Your task to perform on an android device: check google app version Image 0: 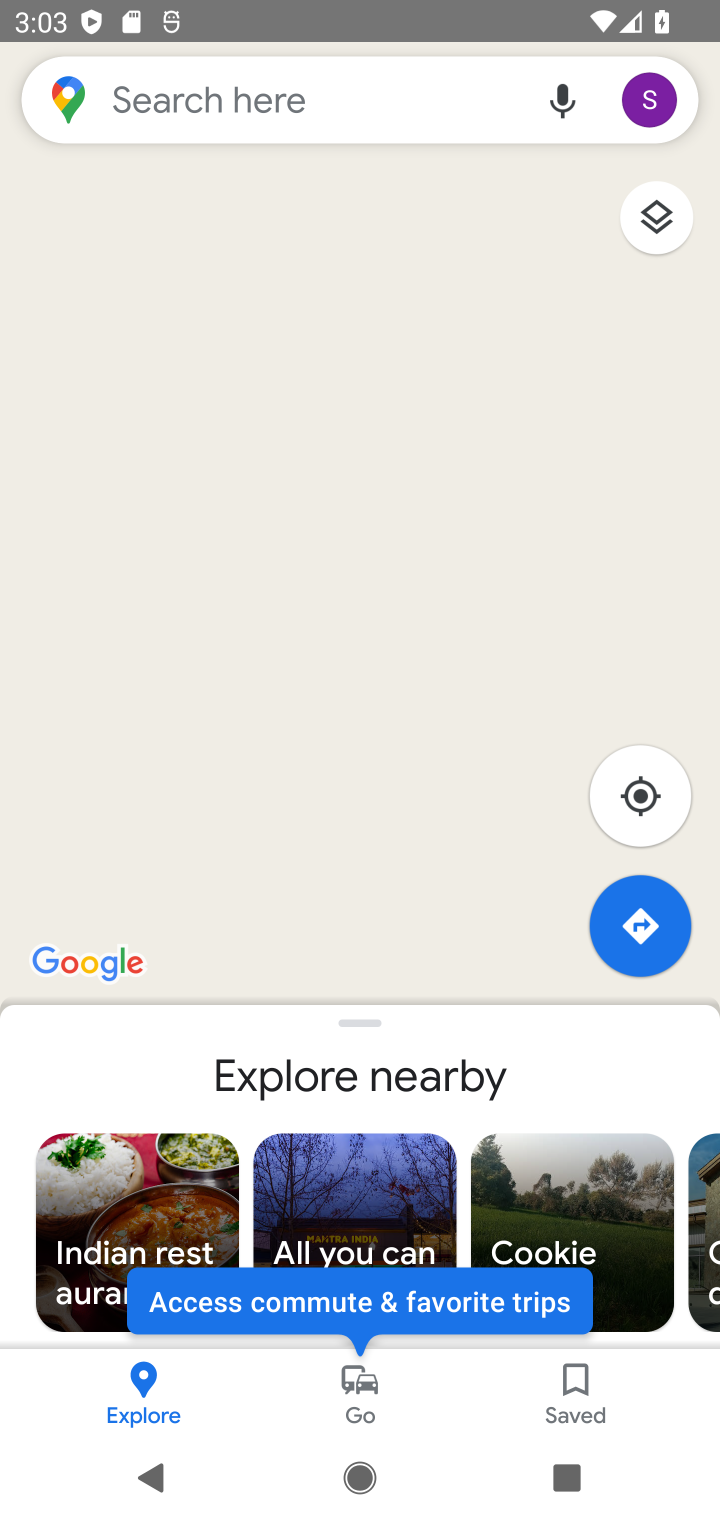
Step 0: press home button
Your task to perform on an android device: check google app version Image 1: 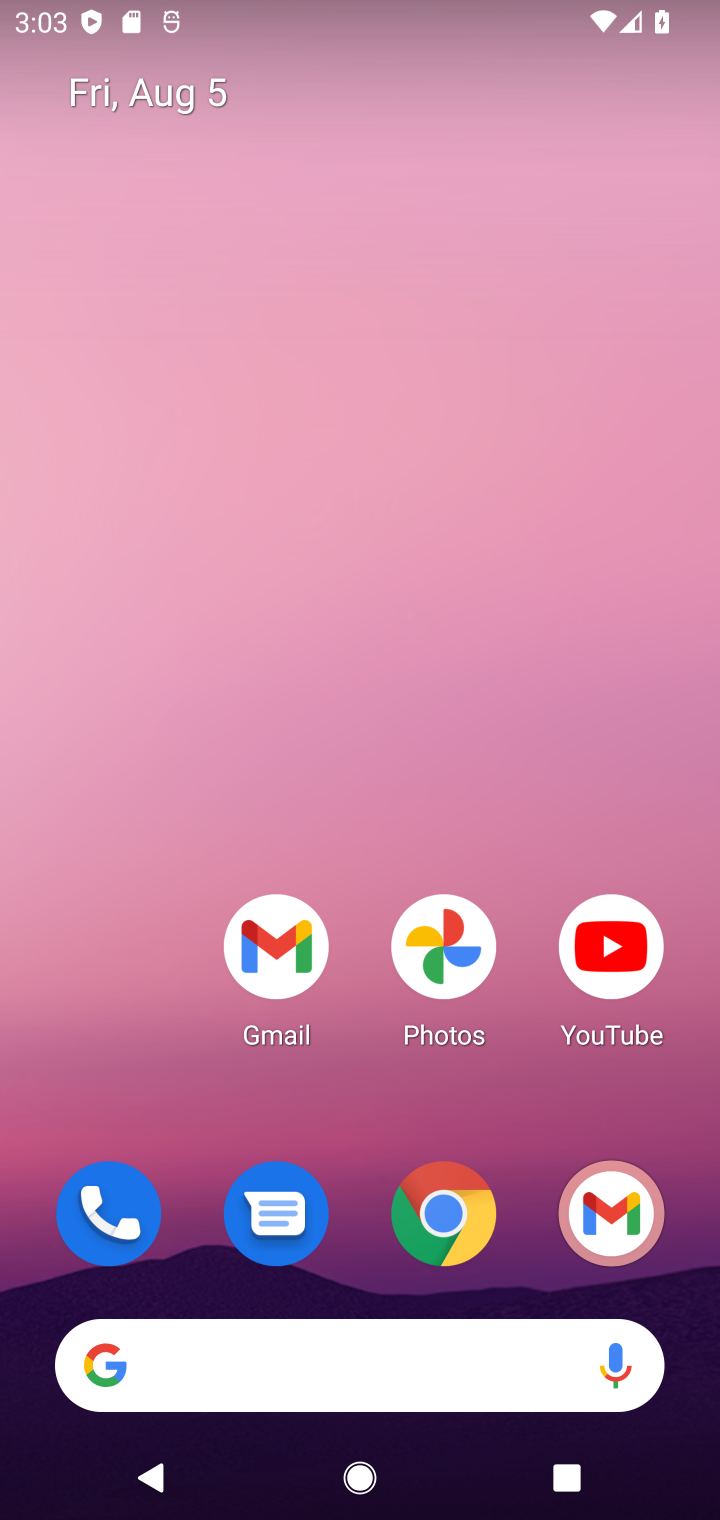
Step 1: drag from (126, 1000) to (118, 0)
Your task to perform on an android device: check google app version Image 2: 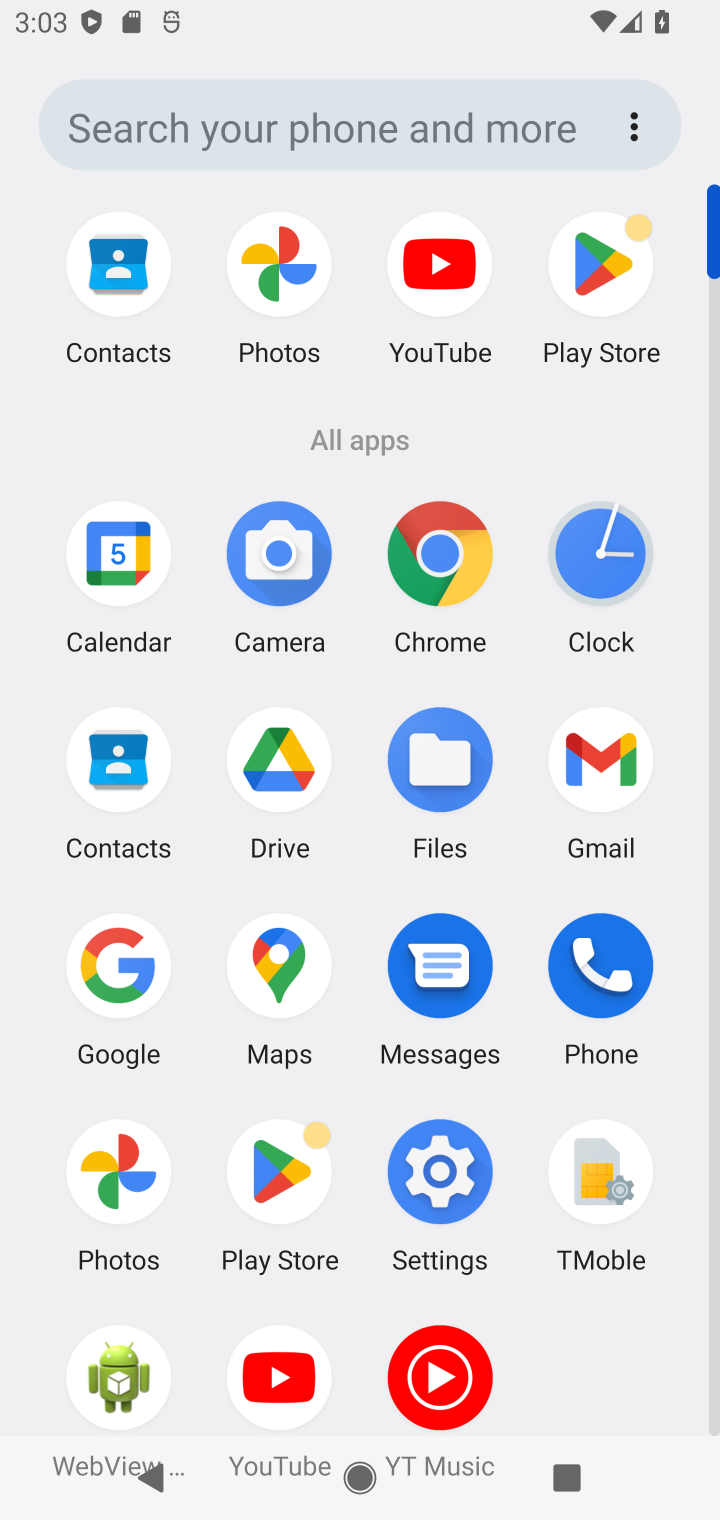
Step 2: click (128, 967)
Your task to perform on an android device: check google app version Image 3: 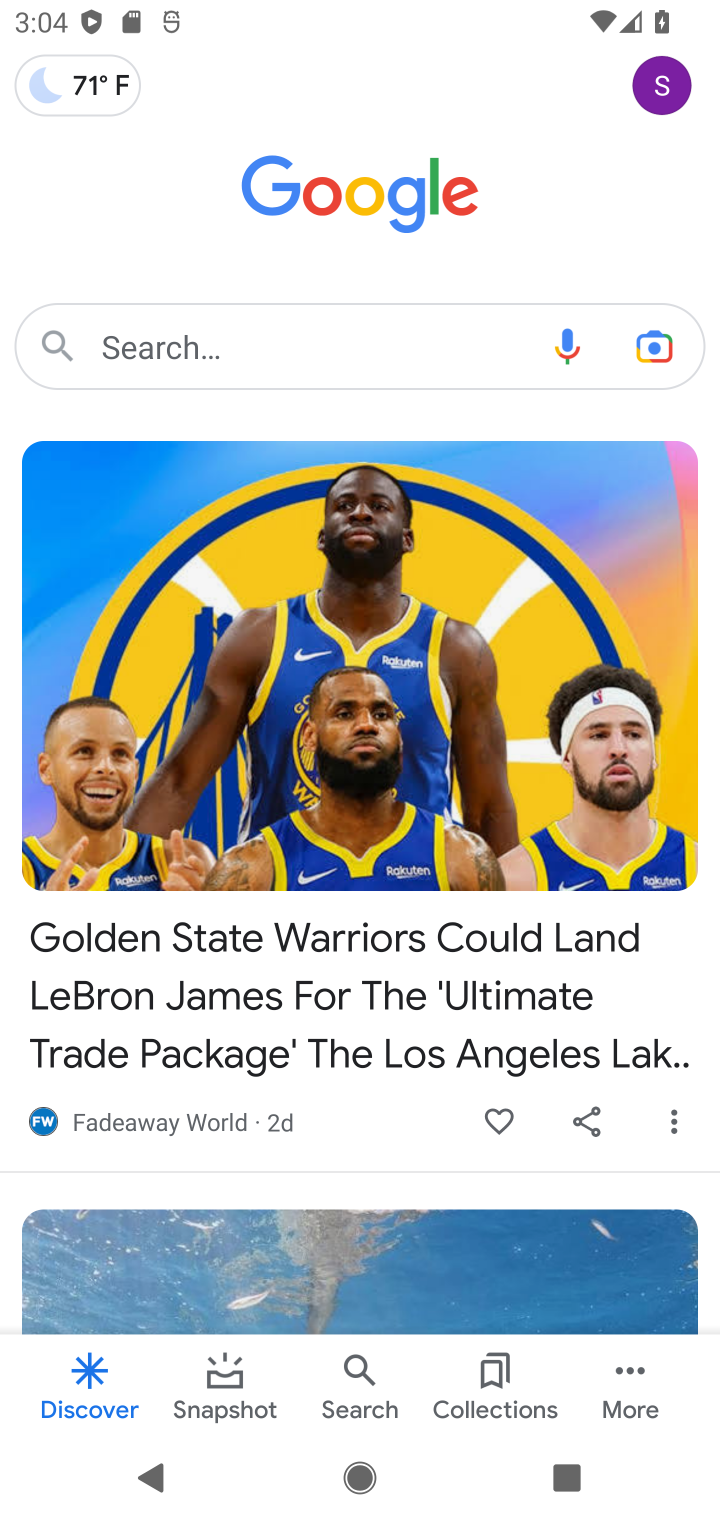
Step 3: click (672, 97)
Your task to perform on an android device: check google app version Image 4: 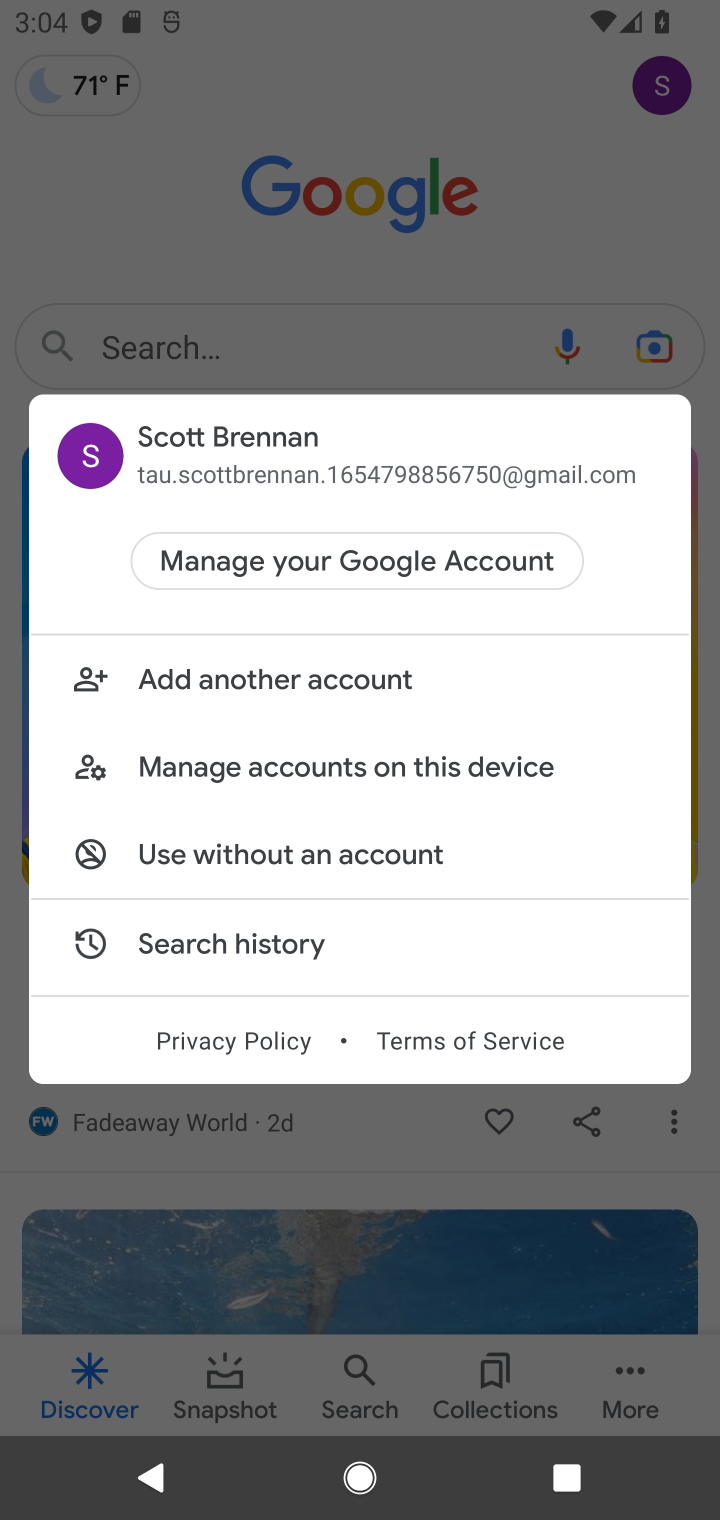
Step 4: click (605, 216)
Your task to perform on an android device: check google app version Image 5: 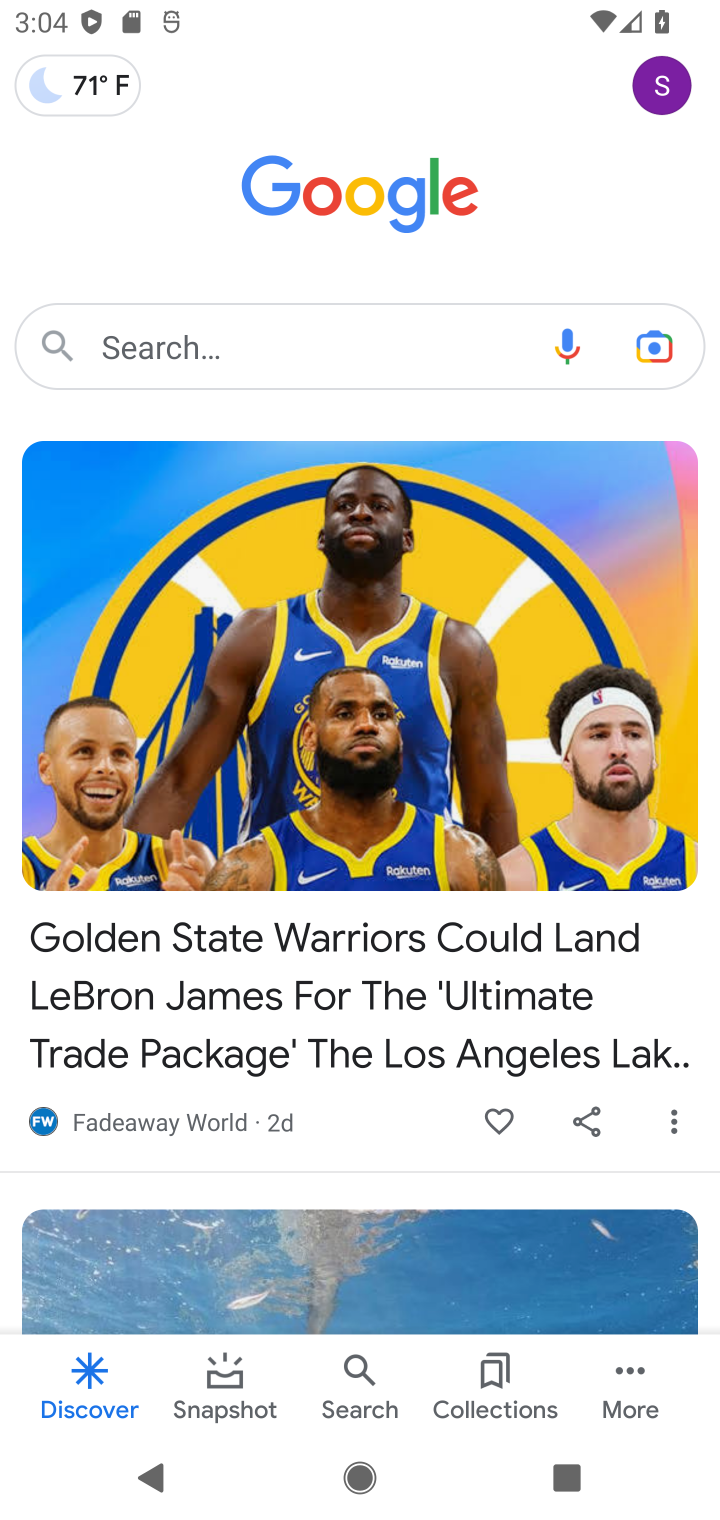
Step 5: click (639, 1362)
Your task to perform on an android device: check google app version Image 6: 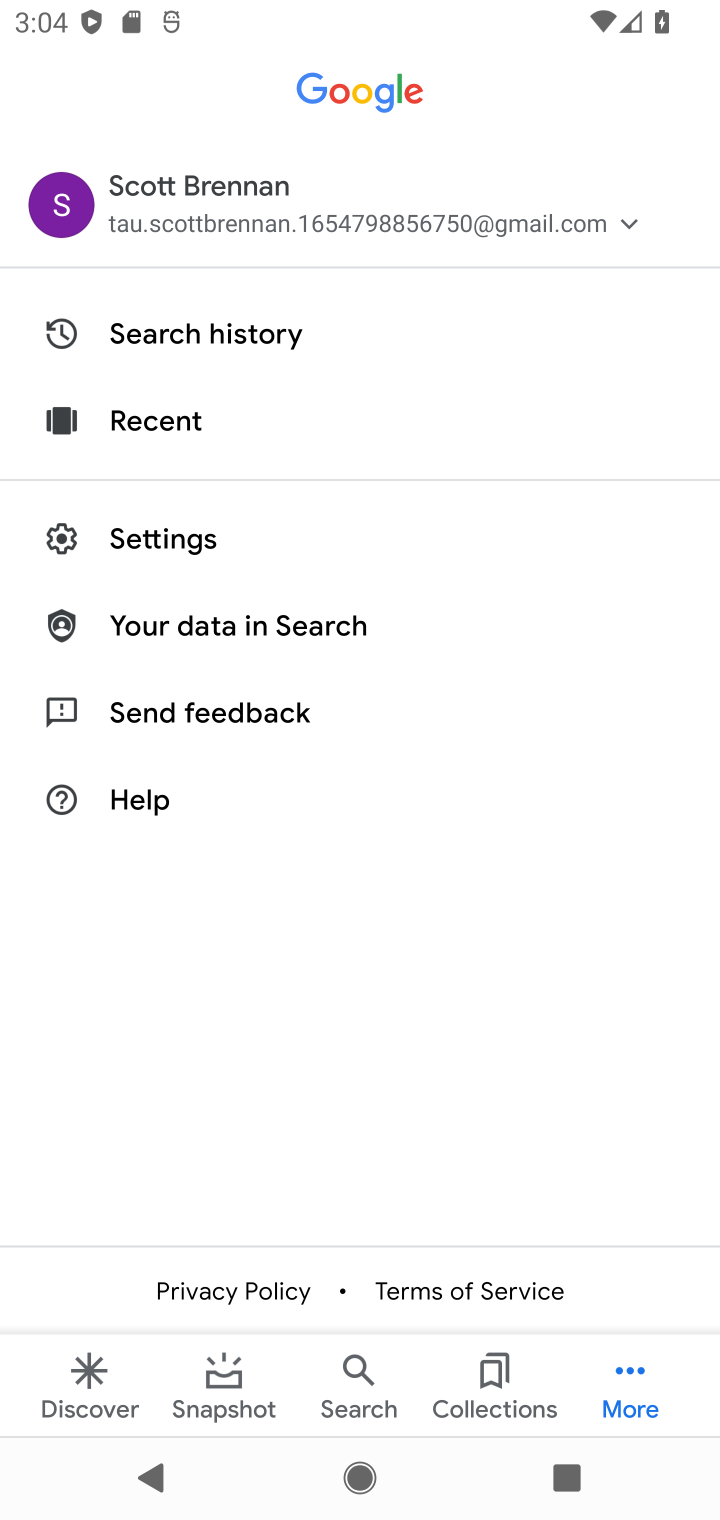
Step 6: click (189, 530)
Your task to perform on an android device: check google app version Image 7: 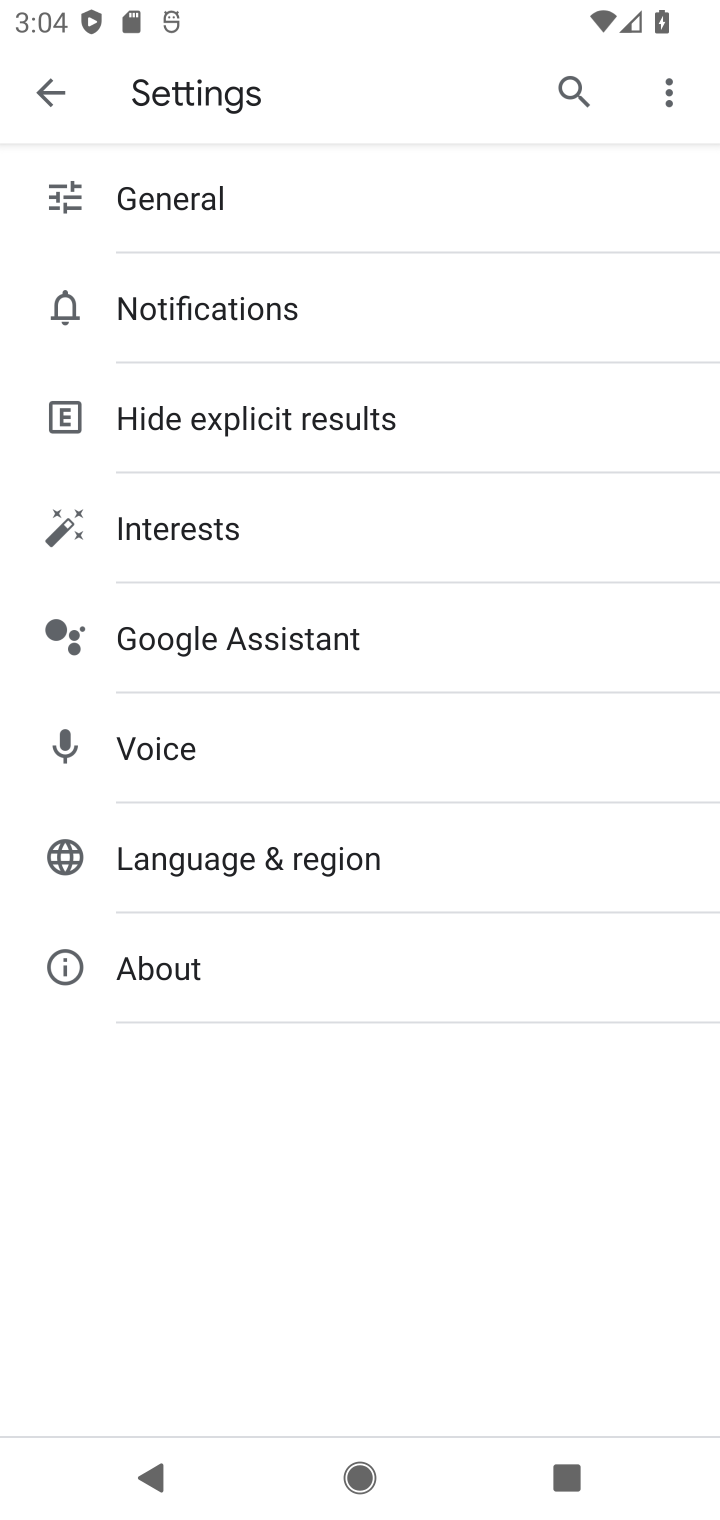
Step 7: click (150, 939)
Your task to perform on an android device: check google app version Image 8: 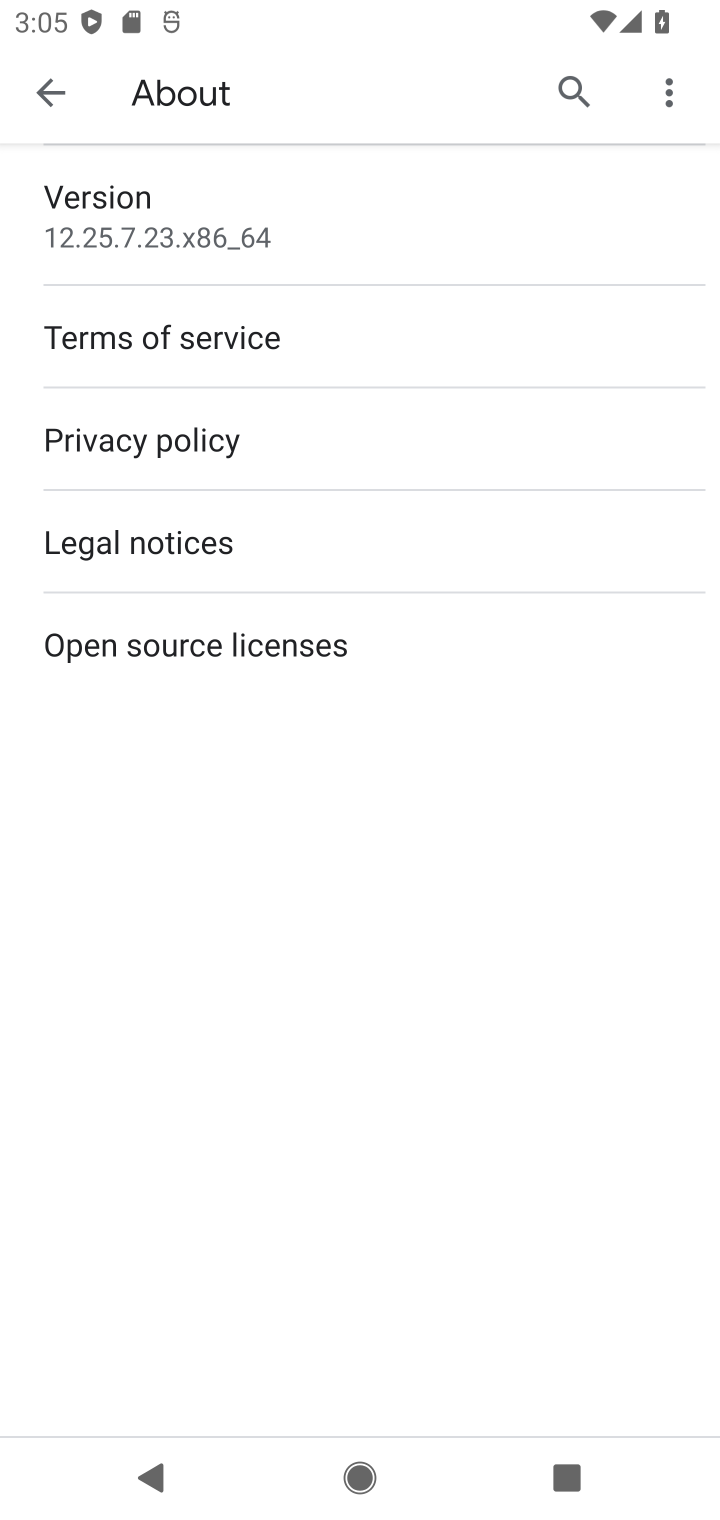
Step 8: task complete